Your task to perform on an android device: delete location history Image 0: 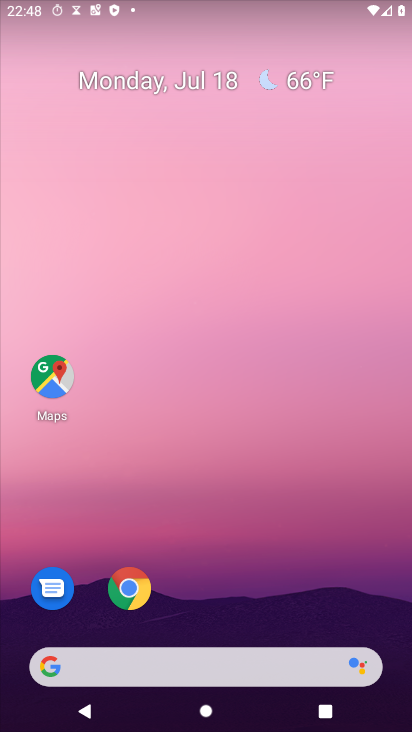
Step 0: click (53, 387)
Your task to perform on an android device: delete location history Image 1: 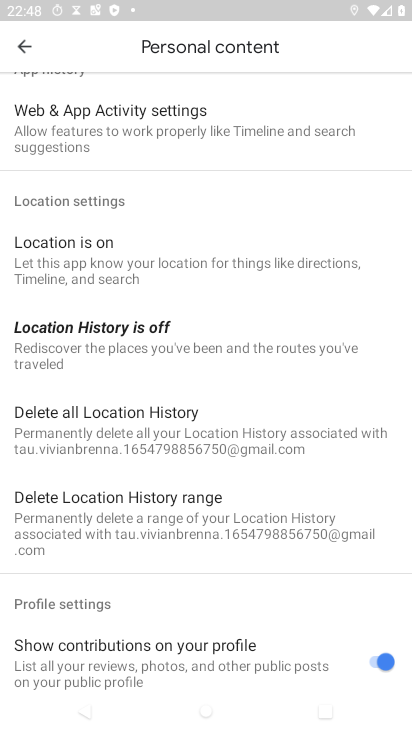
Step 1: click (142, 505)
Your task to perform on an android device: delete location history Image 2: 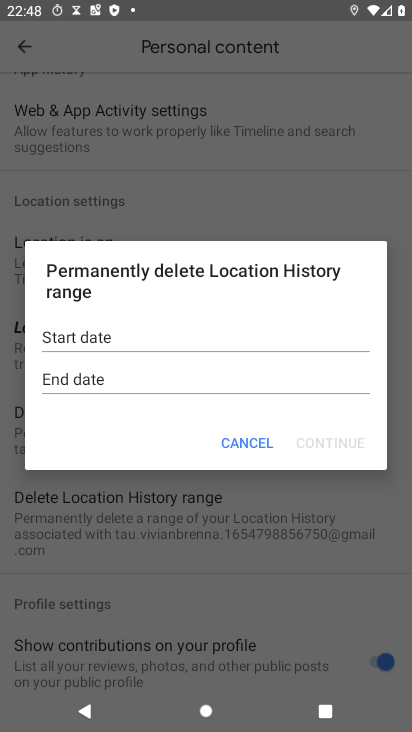
Step 2: click (245, 443)
Your task to perform on an android device: delete location history Image 3: 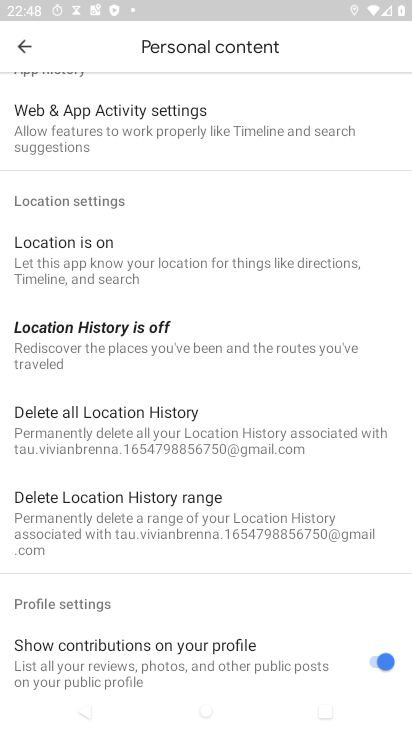
Step 3: click (130, 435)
Your task to perform on an android device: delete location history Image 4: 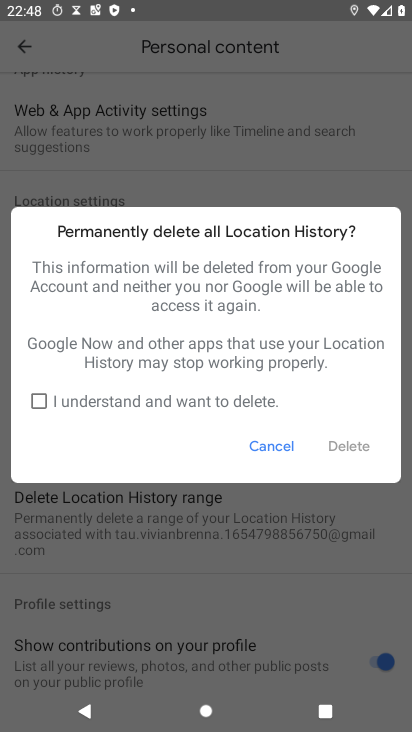
Step 4: click (37, 401)
Your task to perform on an android device: delete location history Image 5: 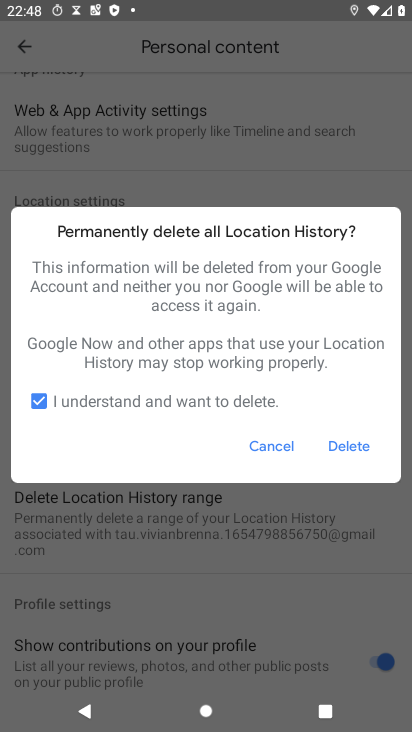
Step 5: click (341, 450)
Your task to perform on an android device: delete location history Image 6: 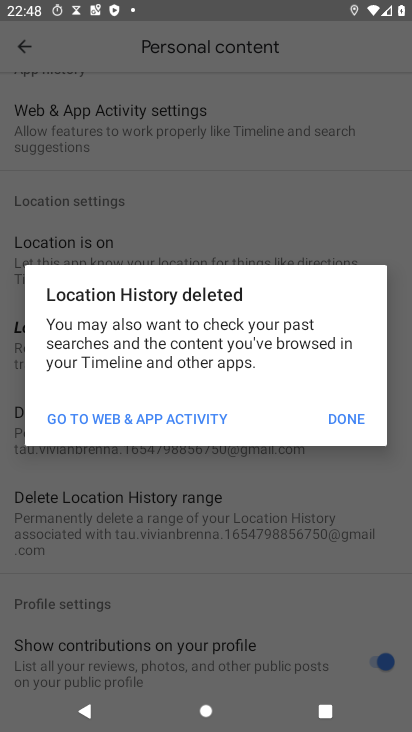
Step 6: click (343, 419)
Your task to perform on an android device: delete location history Image 7: 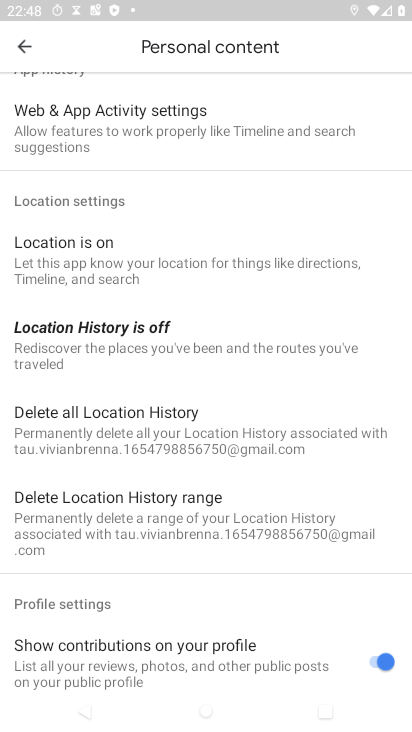
Step 7: task complete